Your task to perform on an android device: Check the weather Image 0: 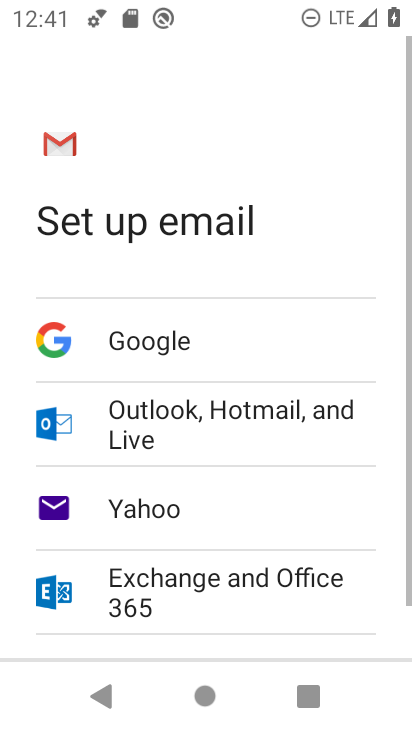
Step 0: press home button
Your task to perform on an android device: Check the weather Image 1: 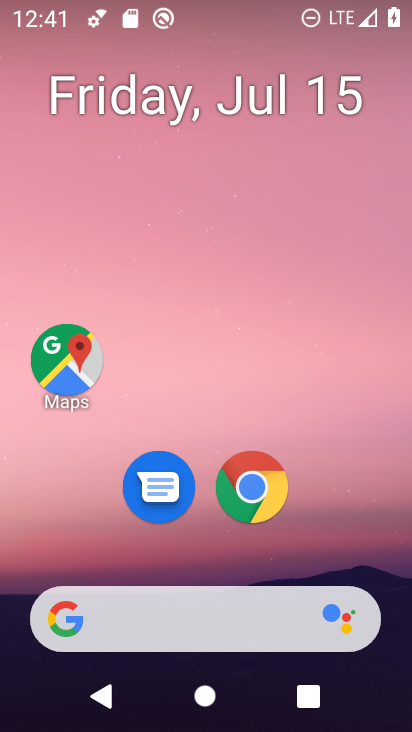
Step 1: drag from (231, 697) to (134, 233)
Your task to perform on an android device: Check the weather Image 2: 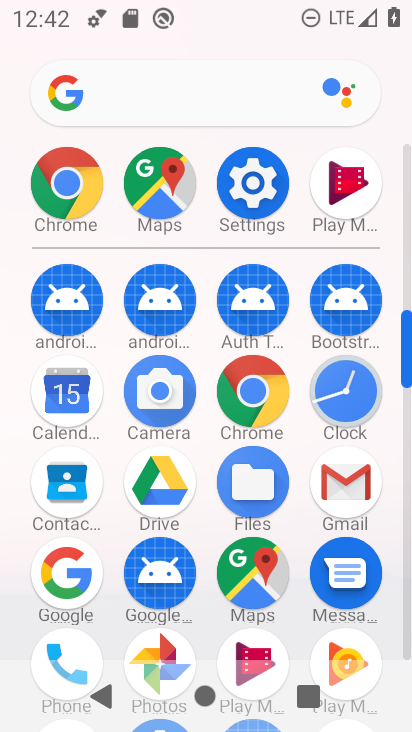
Step 2: click (83, 584)
Your task to perform on an android device: Check the weather Image 3: 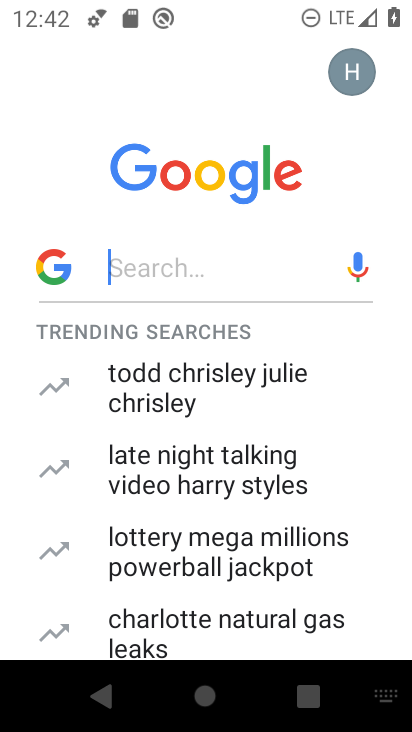
Step 3: type "weather"
Your task to perform on an android device: Check the weather Image 4: 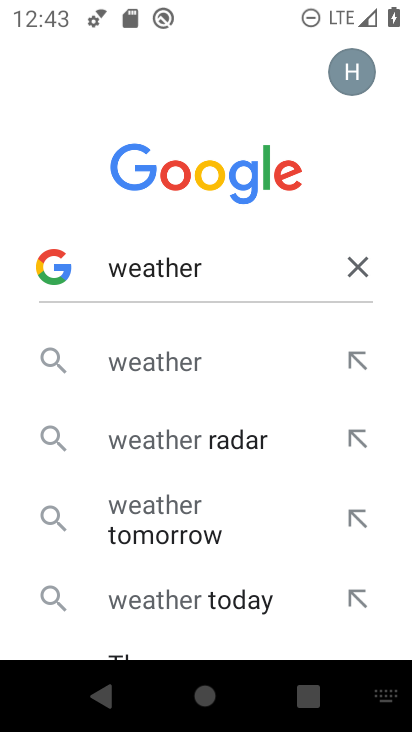
Step 4: click (239, 370)
Your task to perform on an android device: Check the weather Image 5: 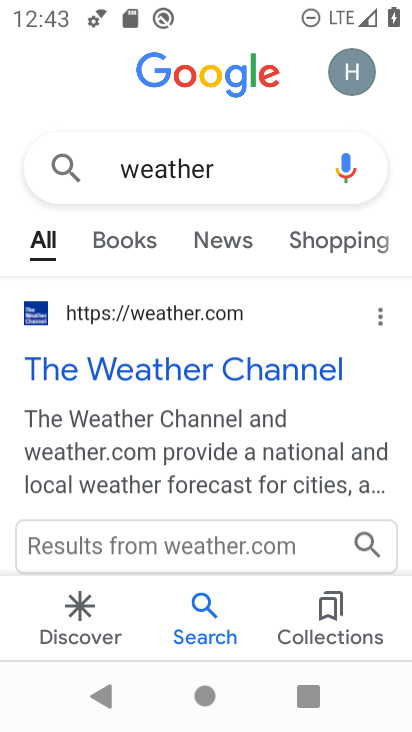
Step 5: task complete